Your task to perform on an android device: allow cookies in the chrome app Image 0: 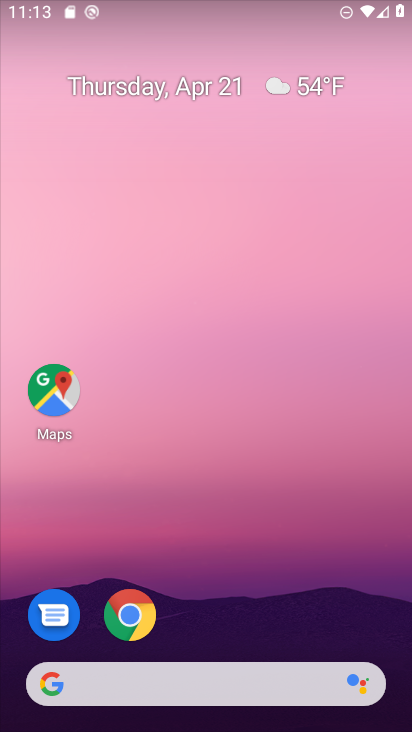
Step 0: click (140, 615)
Your task to perform on an android device: allow cookies in the chrome app Image 1: 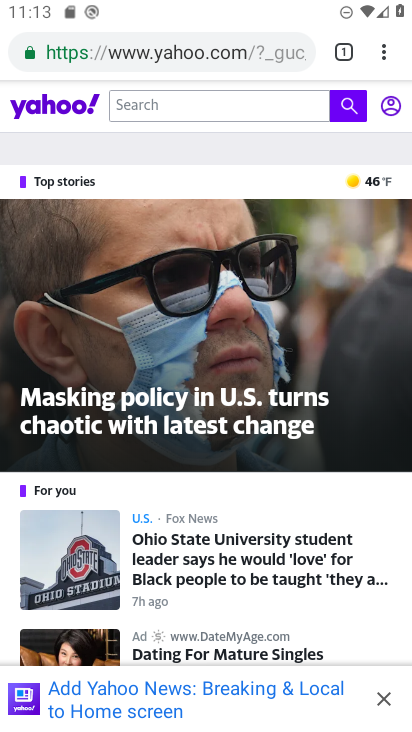
Step 1: click (383, 53)
Your task to perform on an android device: allow cookies in the chrome app Image 2: 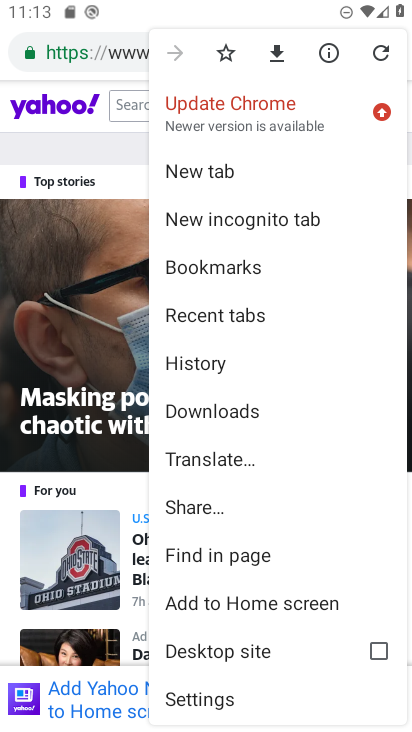
Step 2: click (314, 716)
Your task to perform on an android device: allow cookies in the chrome app Image 3: 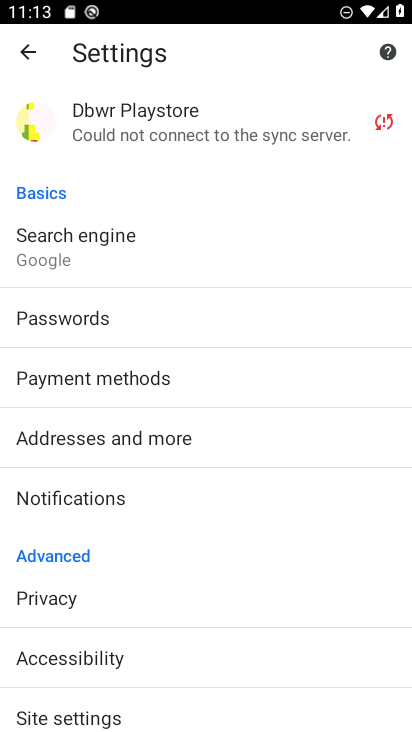
Step 3: click (274, 701)
Your task to perform on an android device: allow cookies in the chrome app Image 4: 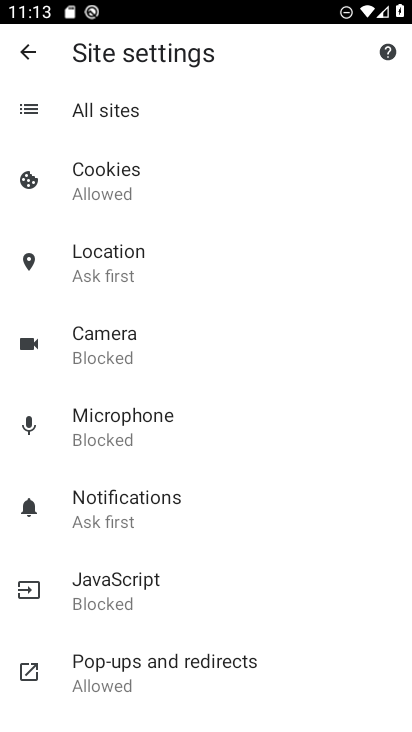
Step 4: click (165, 193)
Your task to perform on an android device: allow cookies in the chrome app Image 5: 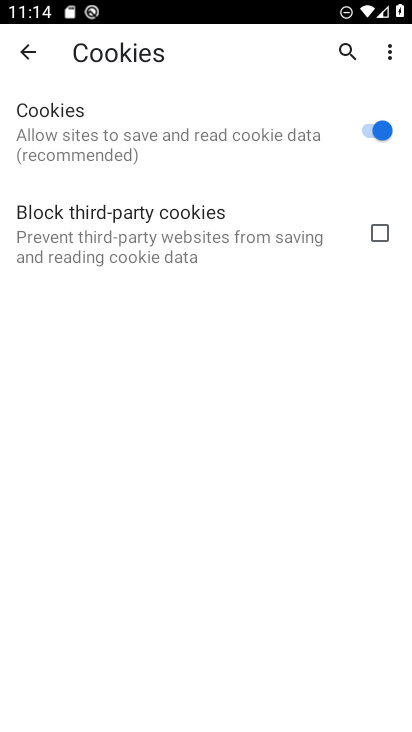
Step 5: task complete